Your task to perform on an android device: Open network settings Image 0: 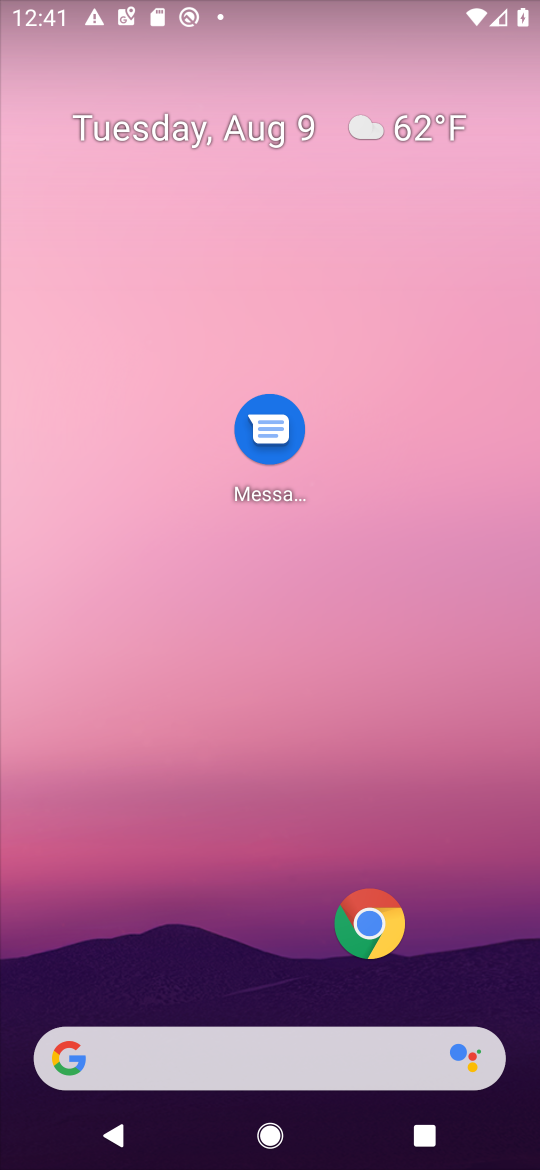
Step 0: drag from (45, 1116) to (199, 355)
Your task to perform on an android device: Open network settings Image 1: 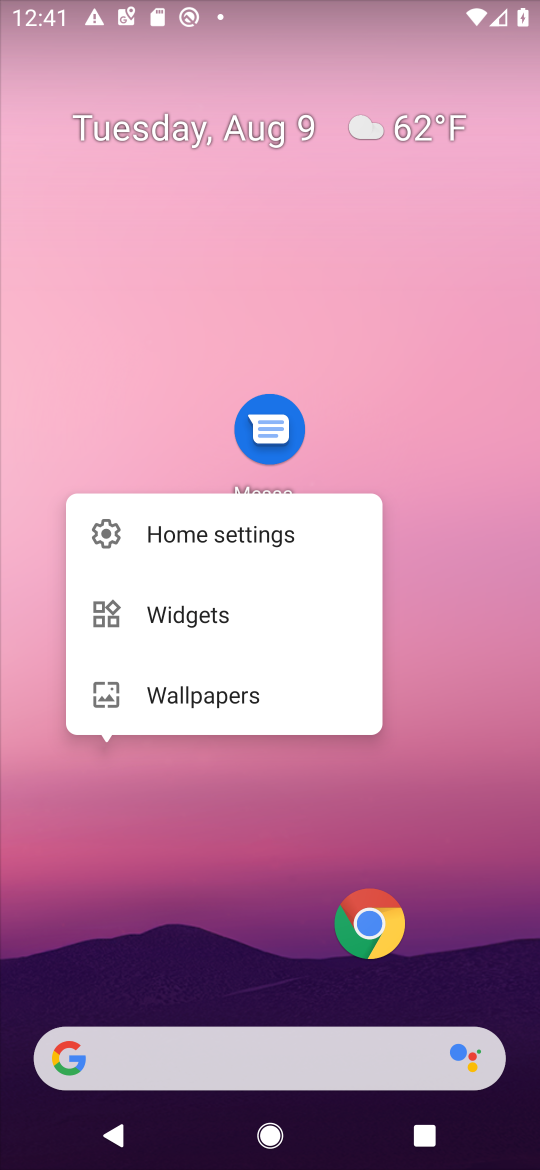
Step 1: task complete